Your task to perform on an android device: Show me recent news Image 0: 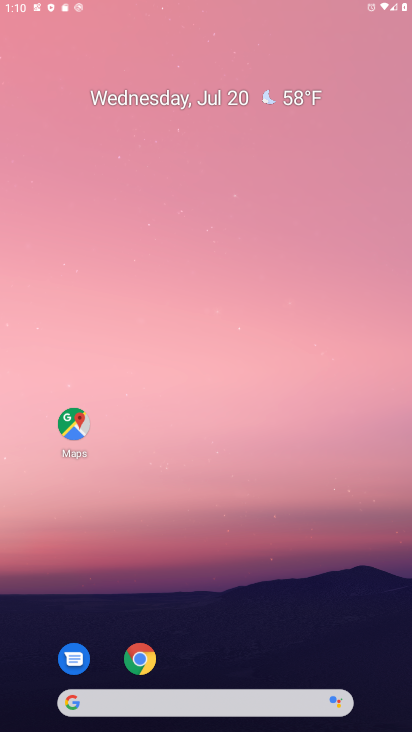
Step 0: press home button
Your task to perform on an android device: Show me recent news Image 1: 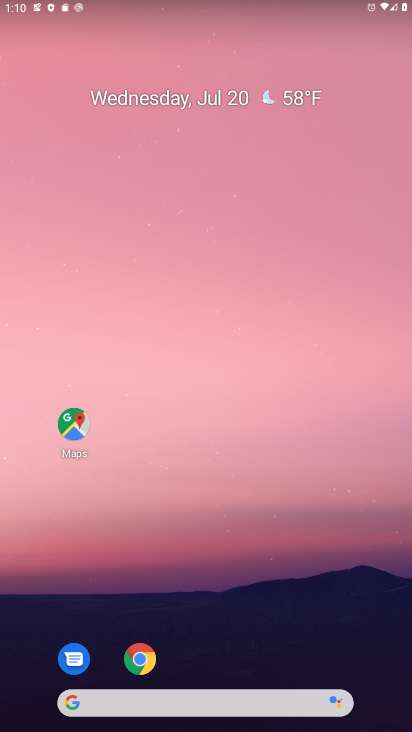
Step 1: task complete